Your task to perform on an android device: change alarm snooze length Image 0: 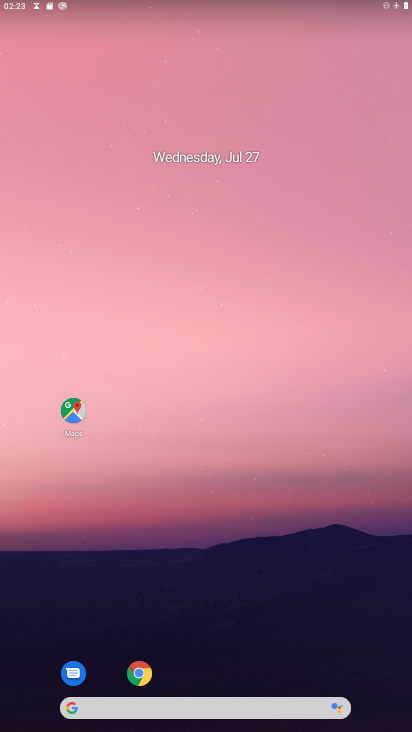
Step 0: drag from (243, 704) to (259, 310)
Your task to perform on an android device: change alarm snooze length Image 1: 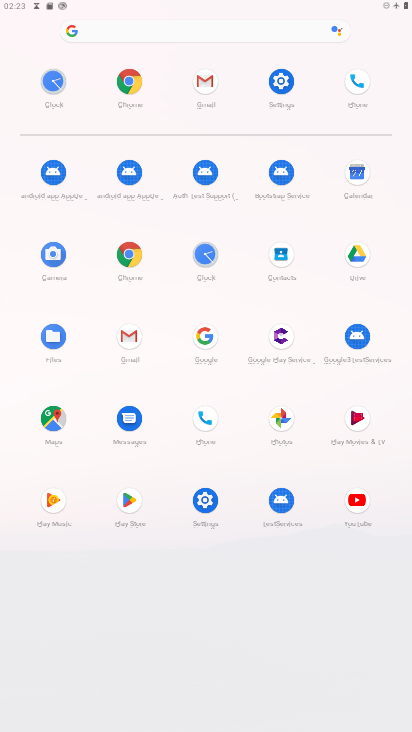
Step 1: click (203, 256)
Your task to perform on an android device: change alarm snooze length Image 2: 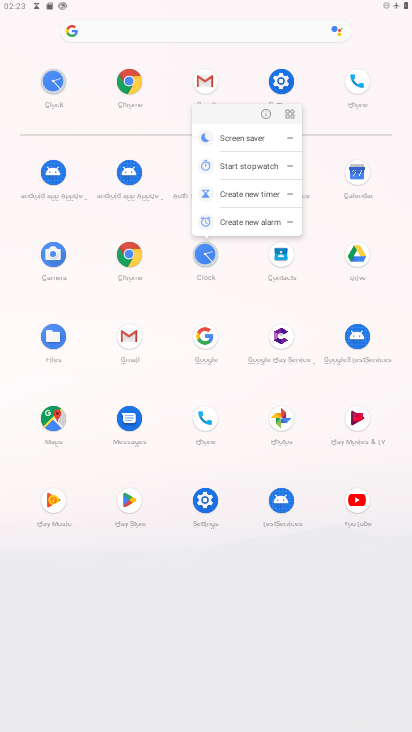
Step 2: click (207, 257)
Your task to perform on an android device: change alarm snooze length Image 3: 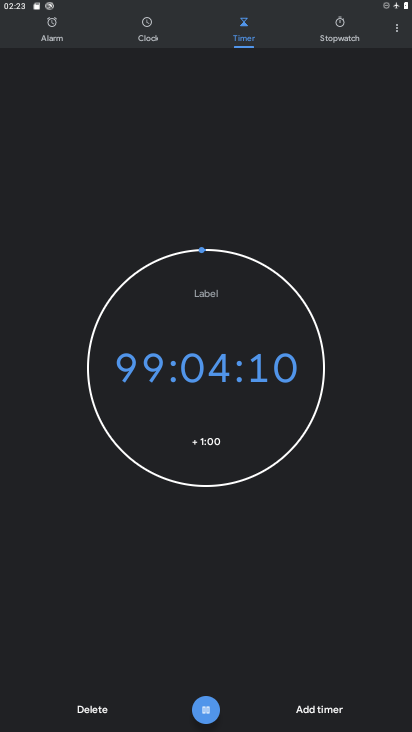
Step 3: click (398, 23)
Your task to perform on an android device: change alarm snooze length Image 4: 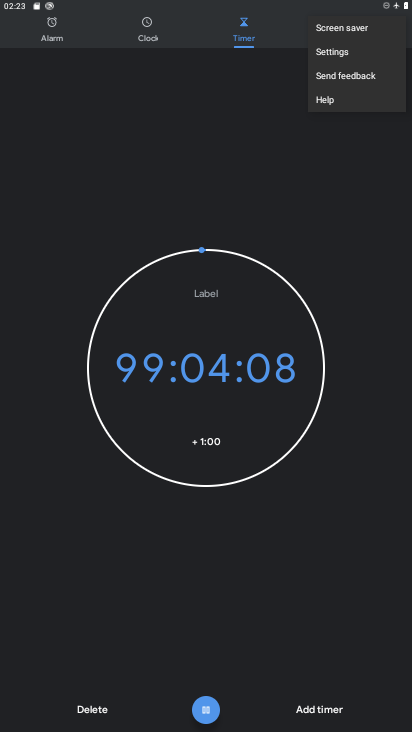
Step 4: click (344, 50)
Your task to perform on an android device: change alarm snooze length Image 5: 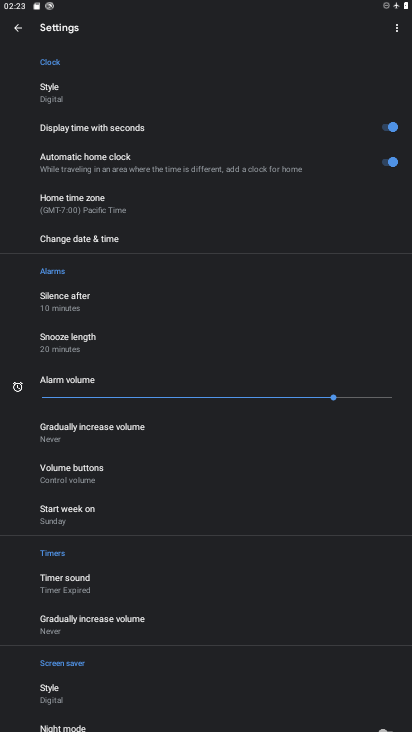
Step 5: click (94, 349)
Your task to perform on an android device: change alarm snooze length Image 6: 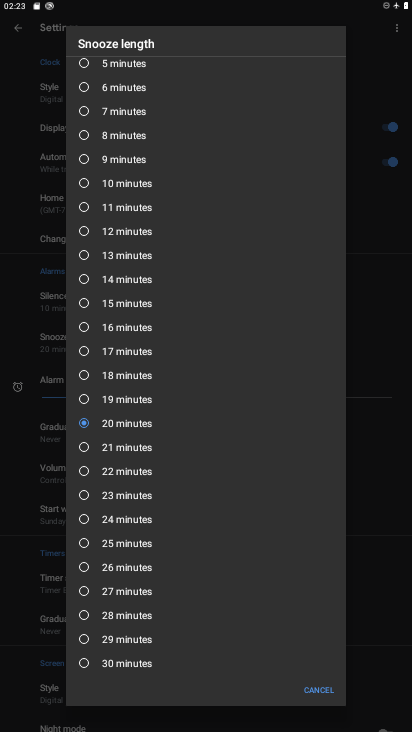
Step 6: click (134, 633)
Your task to perform on an android device: change alarm snooze length Image 7: 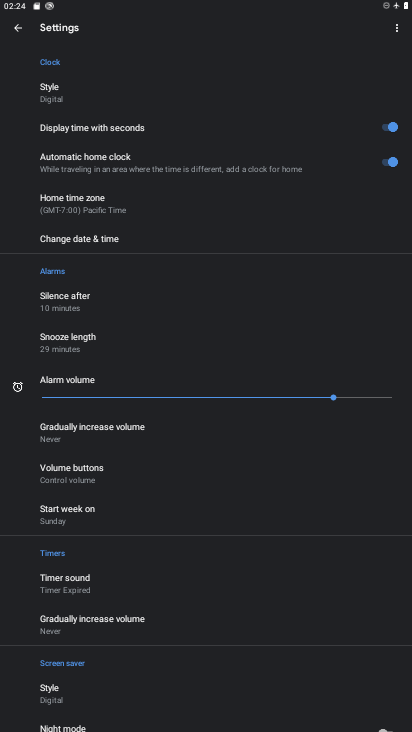
Step 7: task complete